Your task to perform on an android device: Open internet settings Image 0: 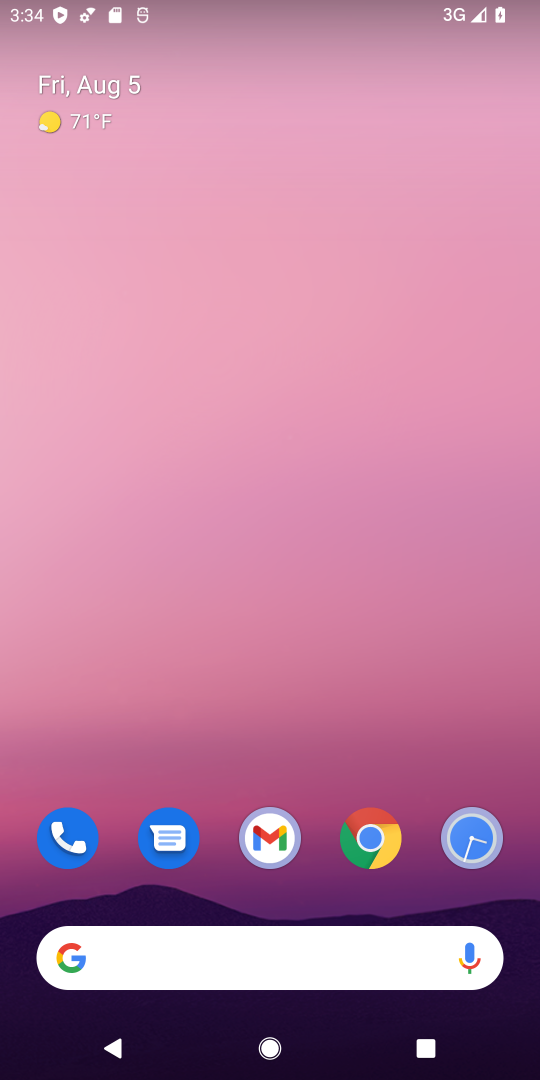
Step 0: drag from (295, 943) to (398, 220)
Your task to perform on an android device: Open internet settings Image 1: 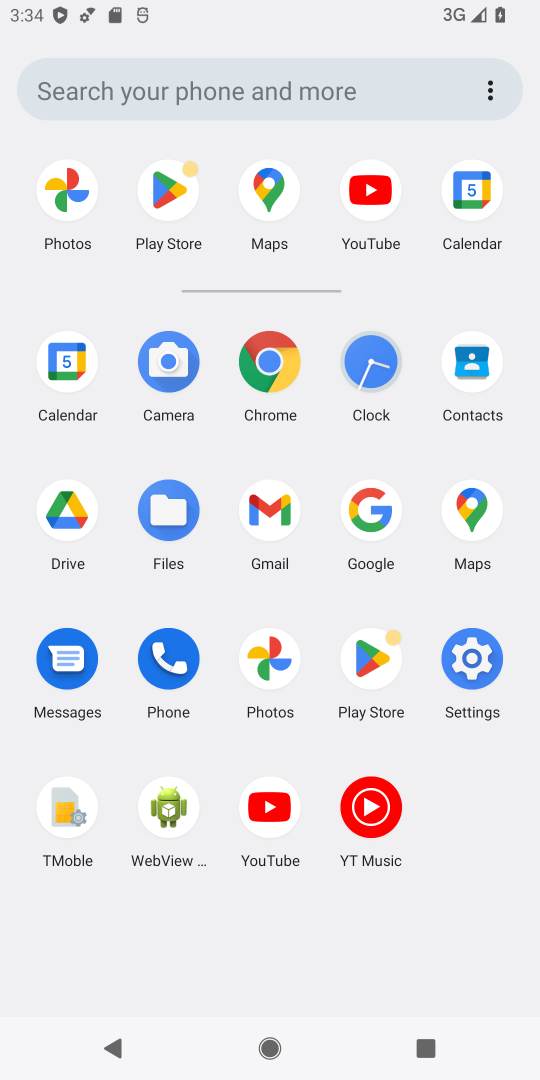
Step 1: click (460, 668)
Your task to perform on an android device: Open internet settings Image 2: 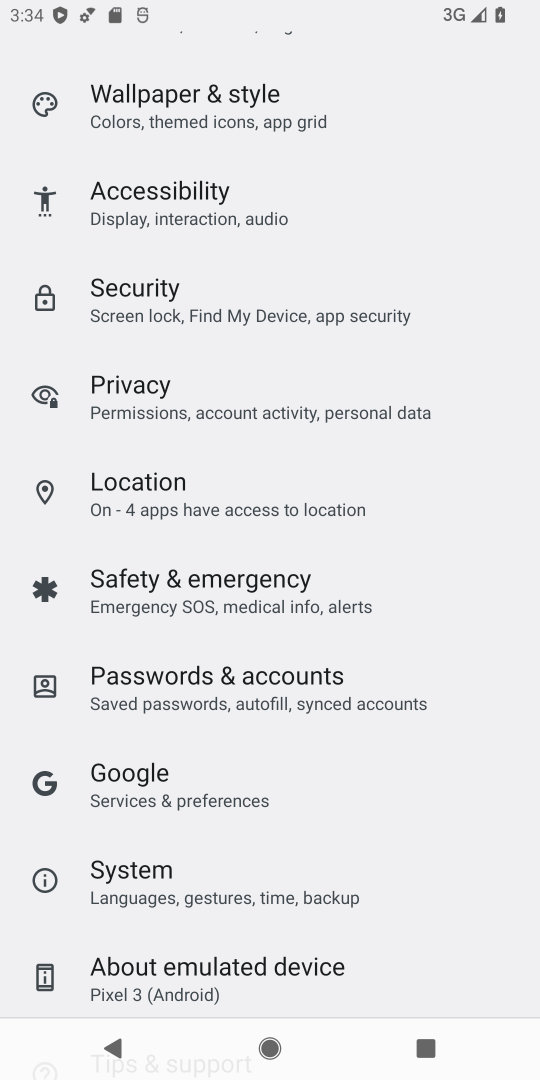
Step 2: drag from (197, 244) to (190, 992)
Your task to perform on an android device: Open internet settings Image 3: 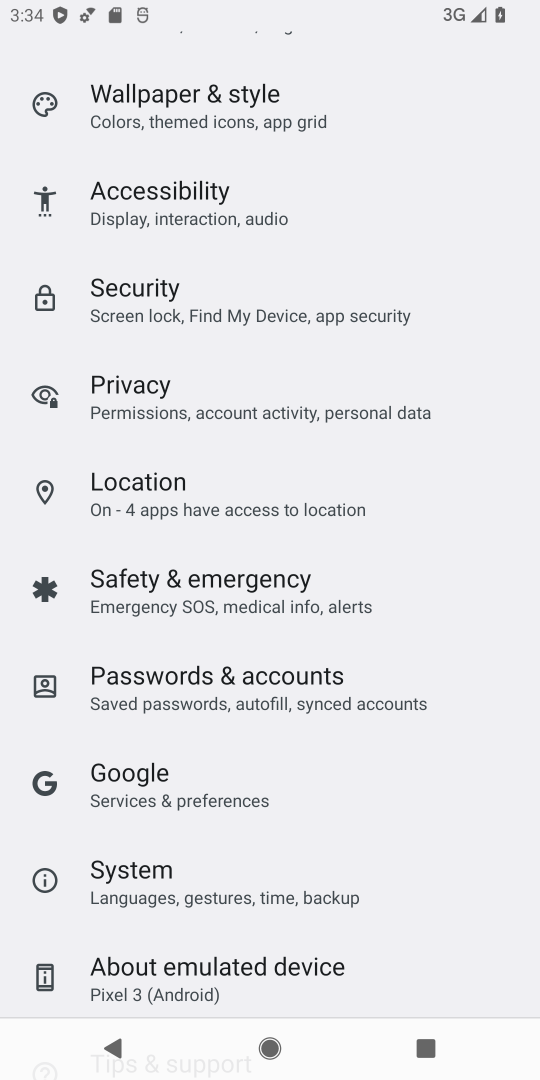
Step 3: drag from (255, 178) to (245, 959)
Your task to perform on an android device: Open internet settings Image 4: 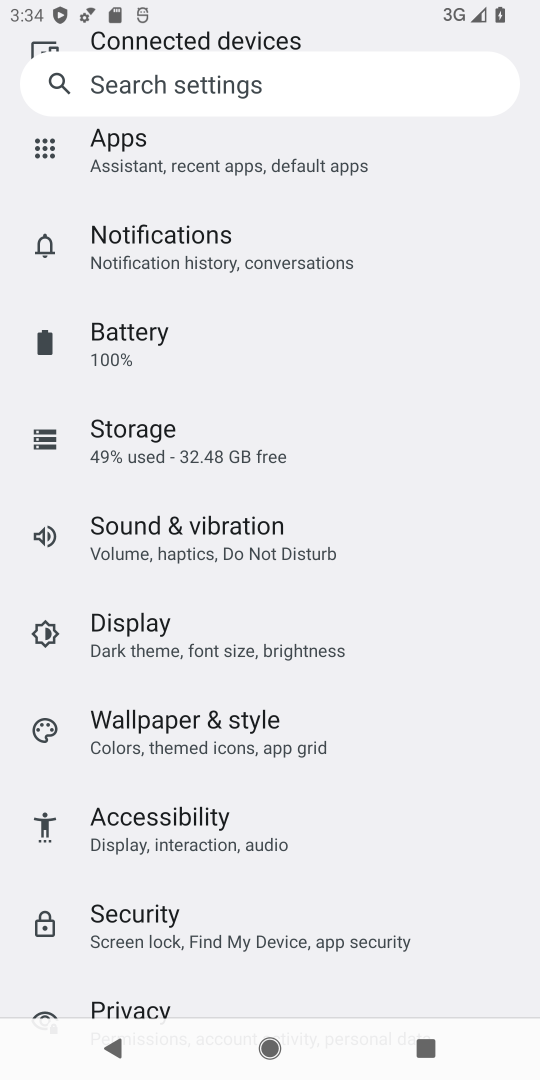
Step 4: drag from (210, 243) to (193, 1064)
Your task to perform on an android device: Open internet settings Image 5: 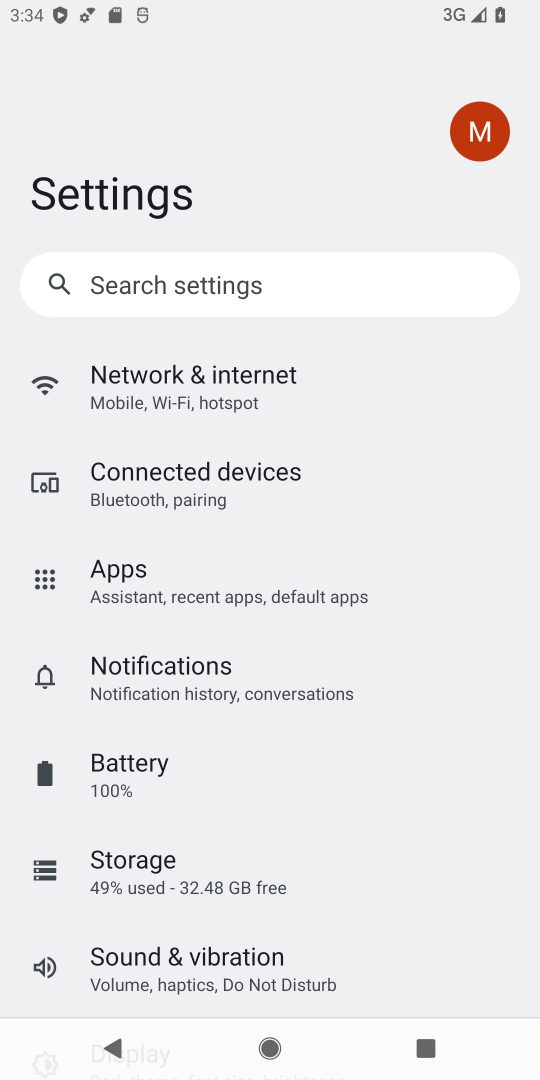
Step 5: click (203, 402)
Your task to perform on an android device: Open internet settings Image 6: 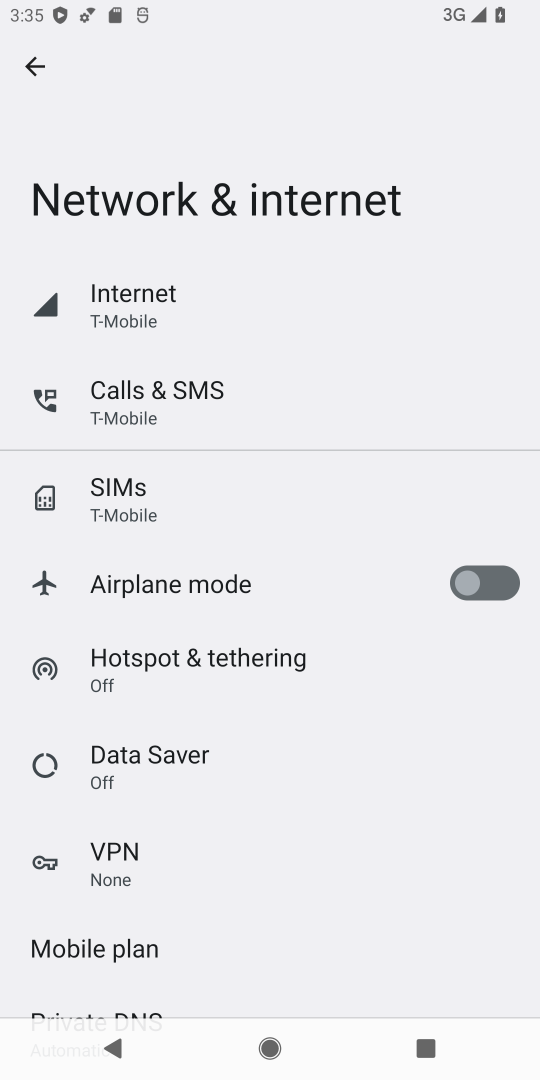
Step 6: task complete